Your task to perform on an android device: Open Wikipedia Image 0: 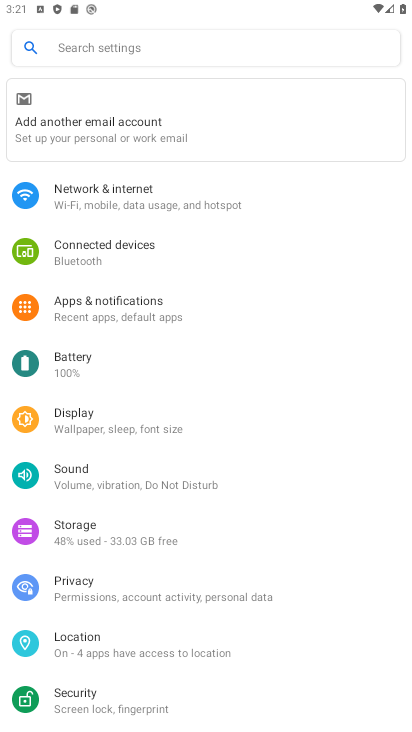
Step 0: press home button
Your task to perform on an android device: Open Wikipedia Image 1: 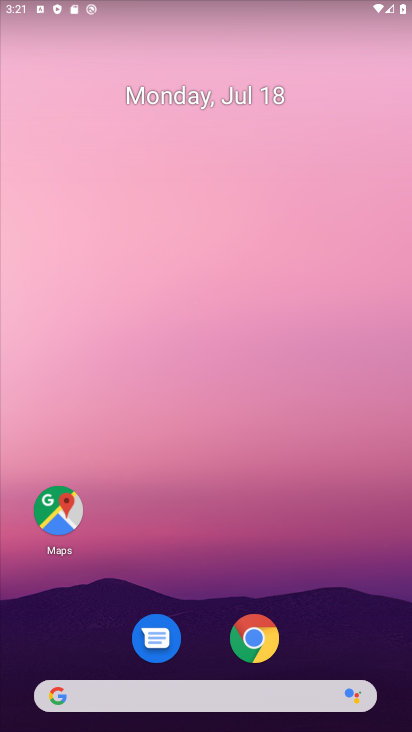
Step 1: drag from (212, 592) to (228, 194)
Your task to perform on an android device: Open Wikipedia Image 2: 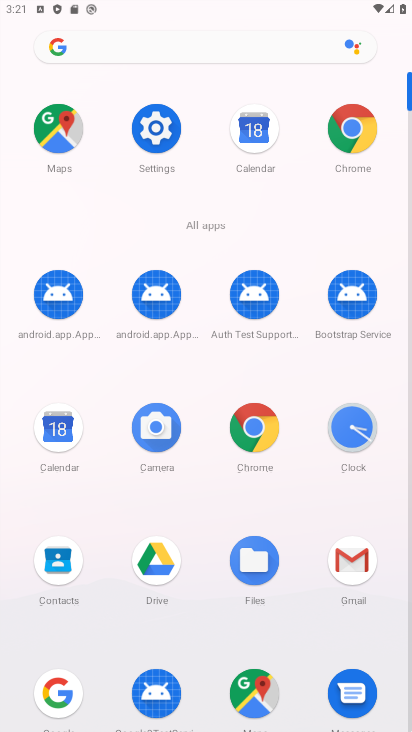
Step 2: drag from (248, 426) to (117, 301)
Your task to perform on an android device: Open Wikipedia Image 3: 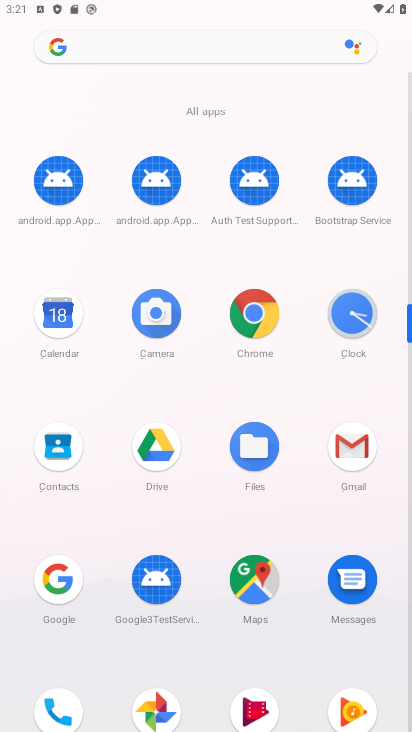
Step 3: drag from (246, 309) to (122, 324)
Your task to perform on an android device: Open Wikipedia Image 4: 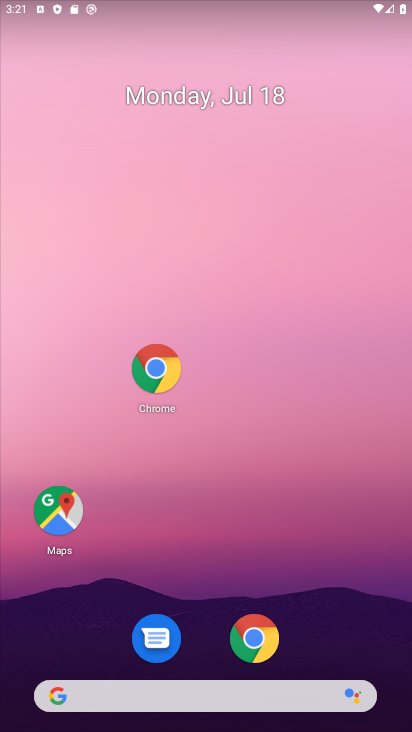
Step 4: click (165, 379)
Your task to perform on an android device: Open Wikipedia Image 5: 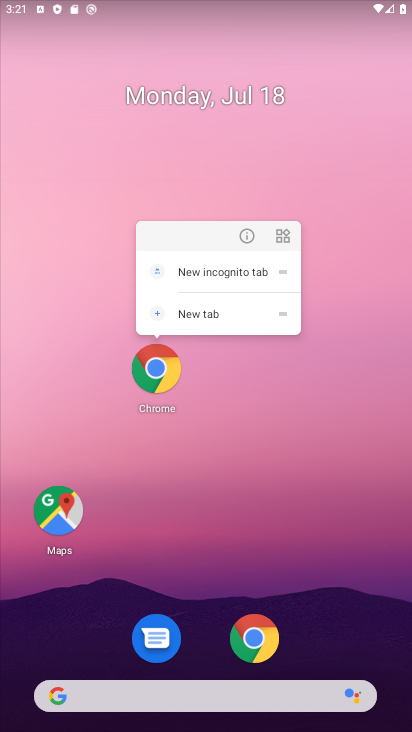
Step 5: click (166, 379)
Your task to perform on an android device: Open Wikipedia Image 6: 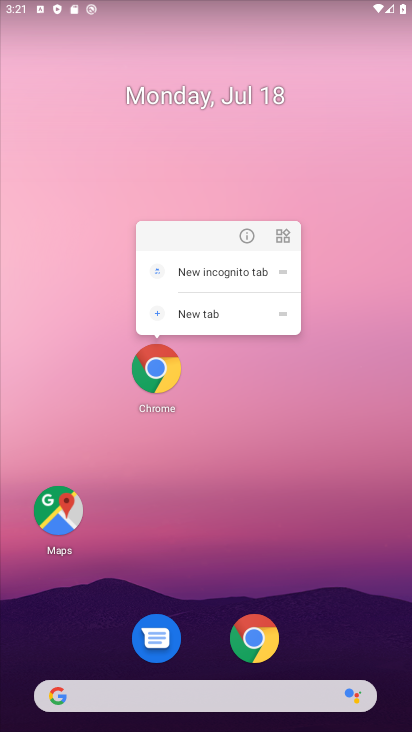
Step 6: click (166, 379)
Your task to perform on an android device: Open Wikipedia Image 7: 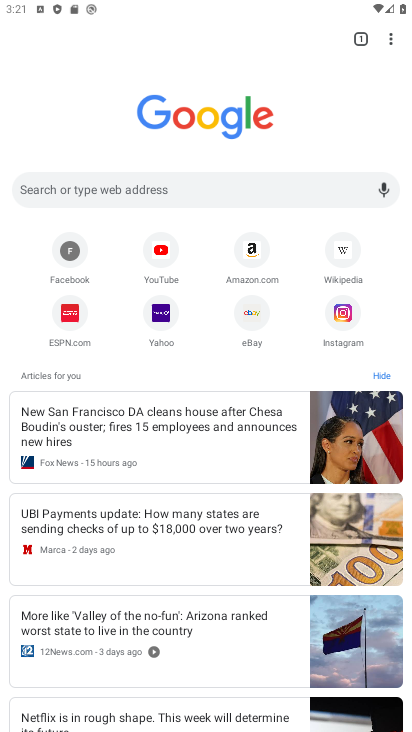
Step 7: click (350, 249)
Your task to perform on an android device: Open Wikipedia Image 8: 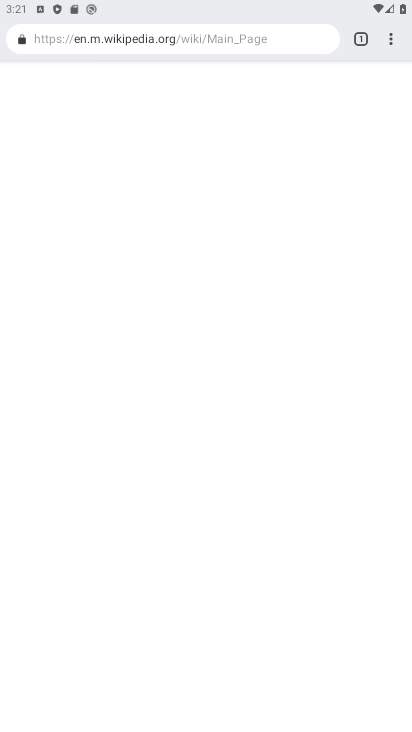
Step 8: task complete